Your task to perform on an android device: change the clock display to show seconds Image 0: 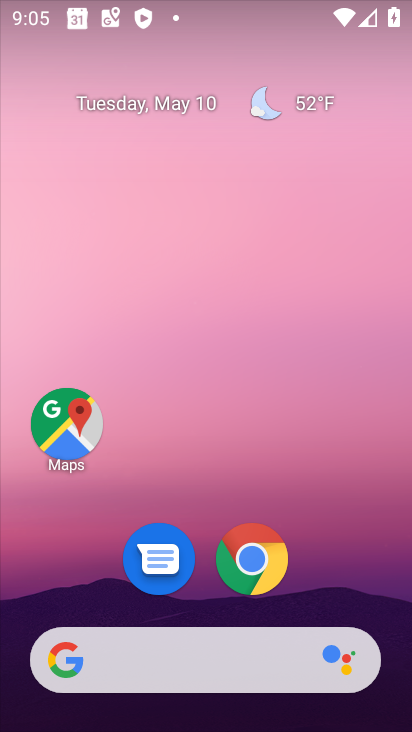
Step 0: drag from (406, 616) to (271, 7)
Your task to perform on an android device: change the clock display to show seconds Image 1: 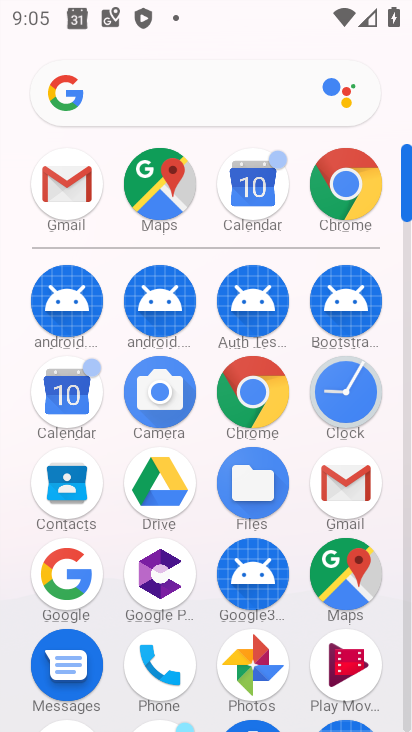
Step 1: click (349, 380)
Your task to perform on an android device: change the clock display to show seconds Image 2: 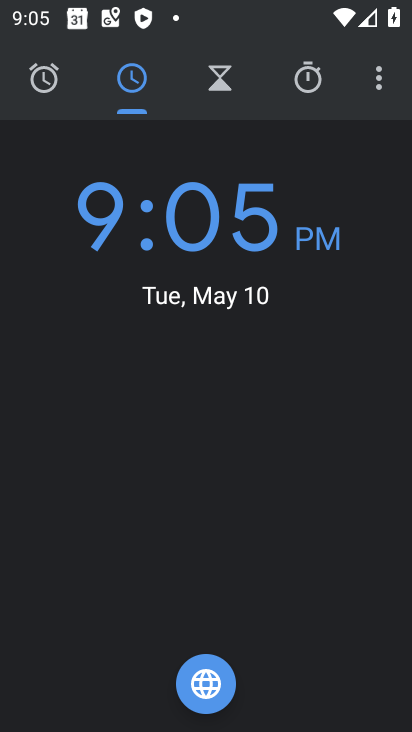
Step 2: drag from (374, 81) to (321, 153)
Your task to perform on an android device: change the clock display to show seconds Image 3: 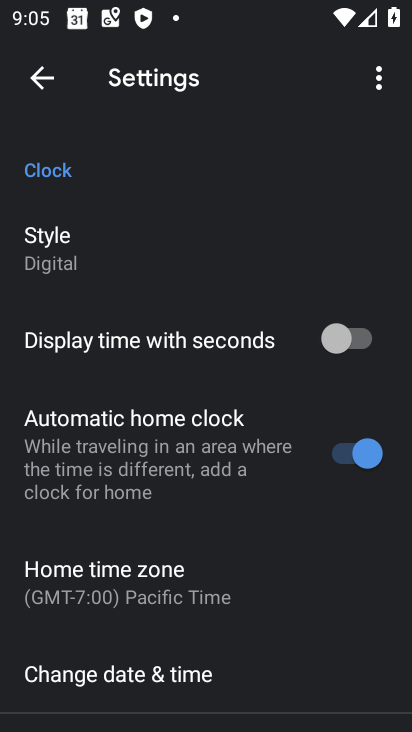
Step 3: click (352, 336)
Your task to perform on an android device: change the clock display to show seconds Image 4: 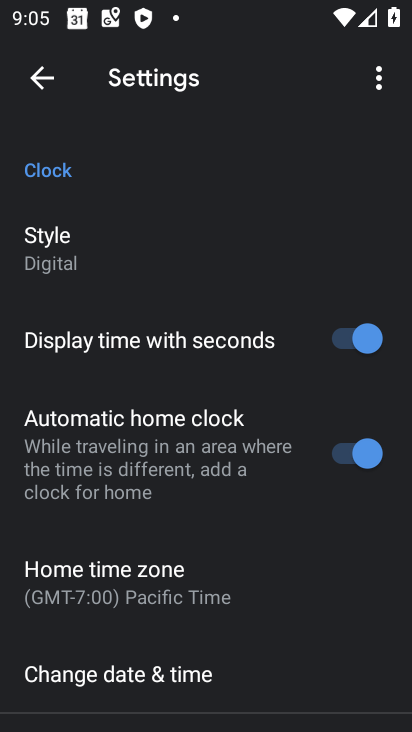
Step 4: task complete